Your task to perform on an android device: Is it going to rain today? Image 0: 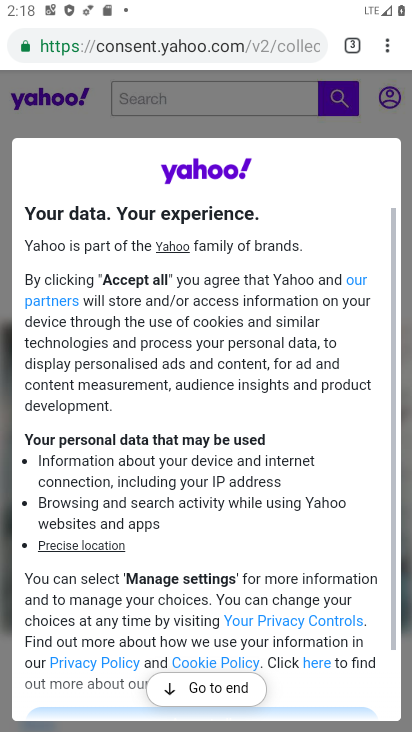
Step 0: press home button
Your task to perform on an android device: Is it going to rain today? Image 1: 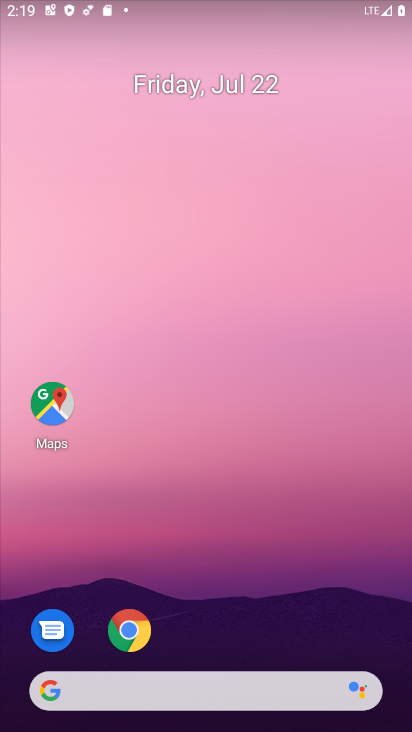
Step 1: click (238, 676)
Your task to perform on an android device: Is it going to rain today? Image 2: 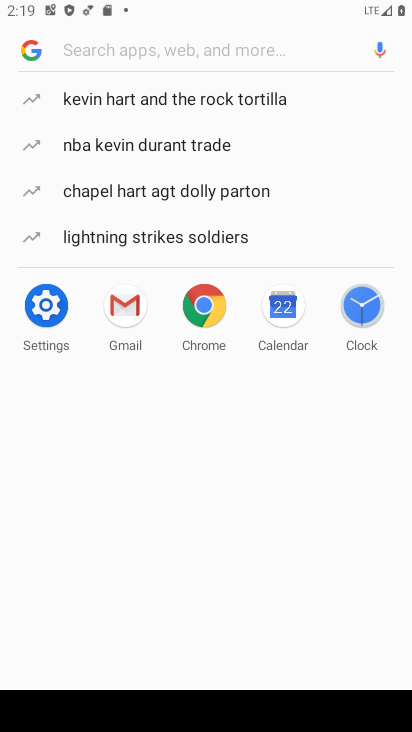
Step 2: type "weather"
Your task to perform on an android device: Is it going to rain today? Image 3: 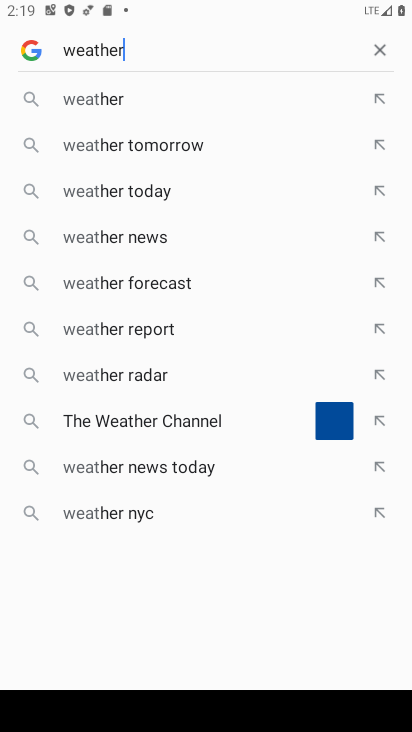
Step 3: type ""
Your task to perform on an android device: Is it going to rain today? Image 4: 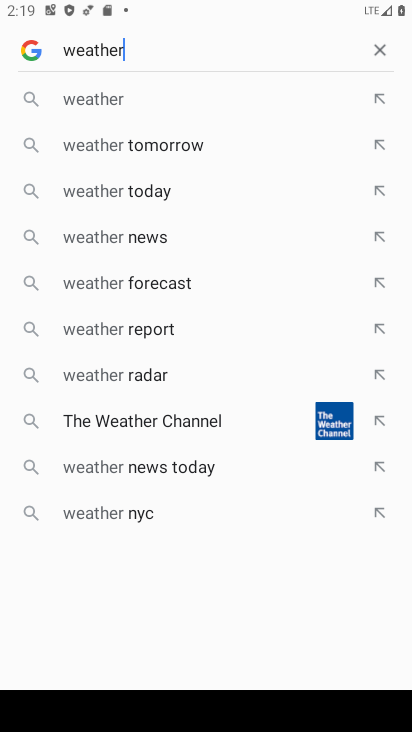
Step 4: click (97, 87)
Your task to perform on an android device: Is it going to rain today? Image 5: 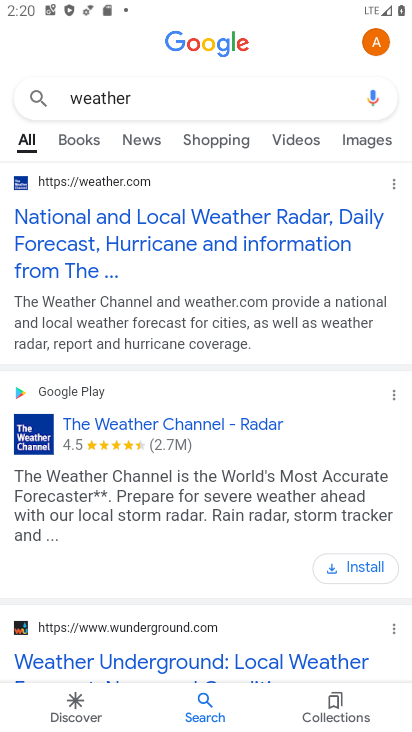
Step 5: task complete